Your task to perform on an android device: Open internet settings Image 0: 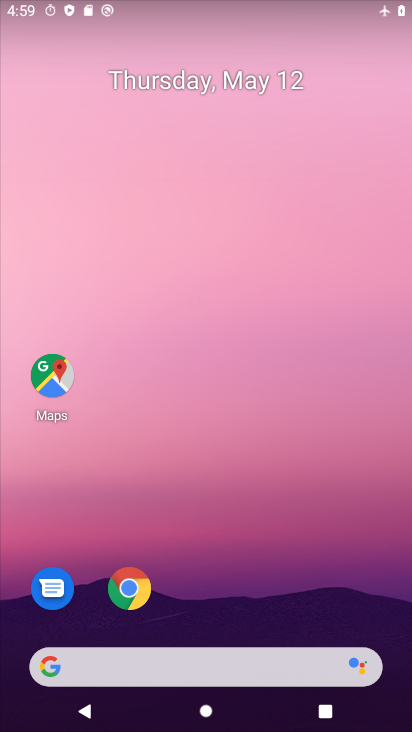
Step 0: drag from (204, 591) to (344, 60)
Your task to perform on an android device: Open internet settings Image 1: 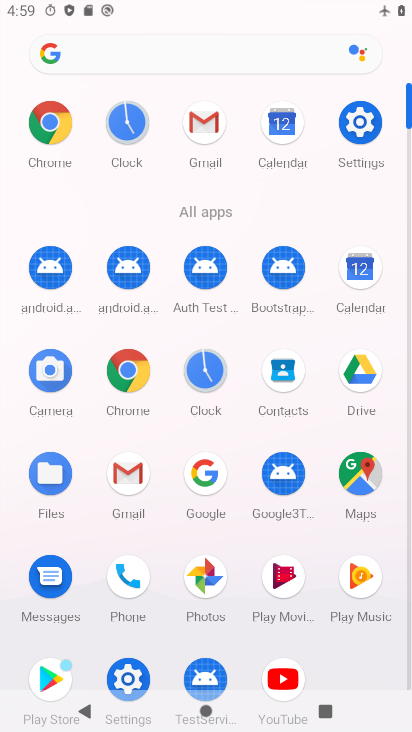
Step 1: click (379, 141)
Your task to perform on an android device: Open internet settings Image 2: 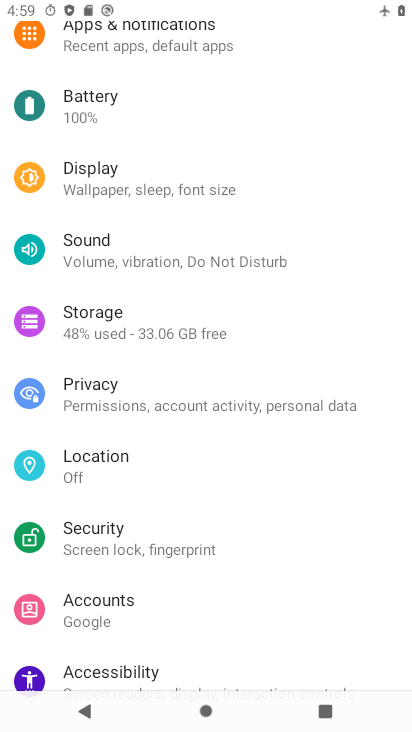
Step 2: drag from (224, 130) to (154, 632)
Your task to perform on an android device: Open internet settings Image 3: 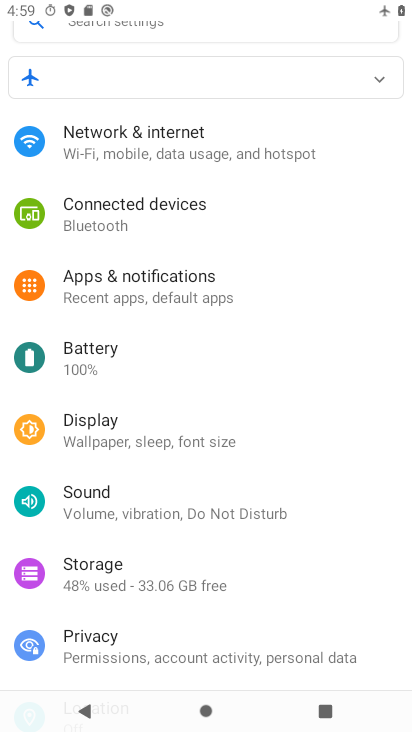
Step 3: click (158, 167)
Your task to perform on an android device: Open internet settings Image 4: 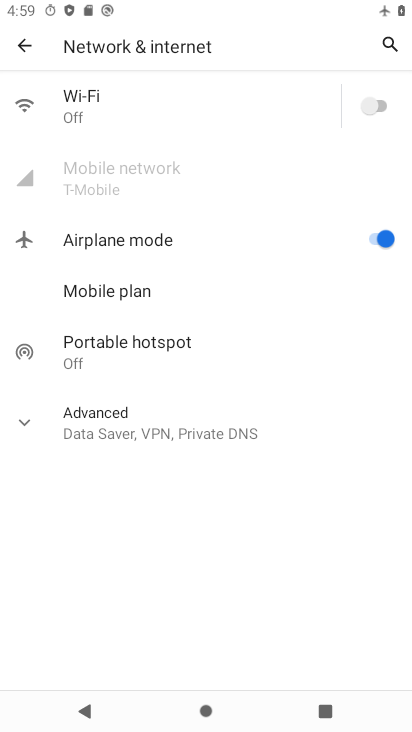
Step 4: task complete